Your task to perform on an android device: Open the calendar app, open the side menu, and click the "Day" option Image 0: 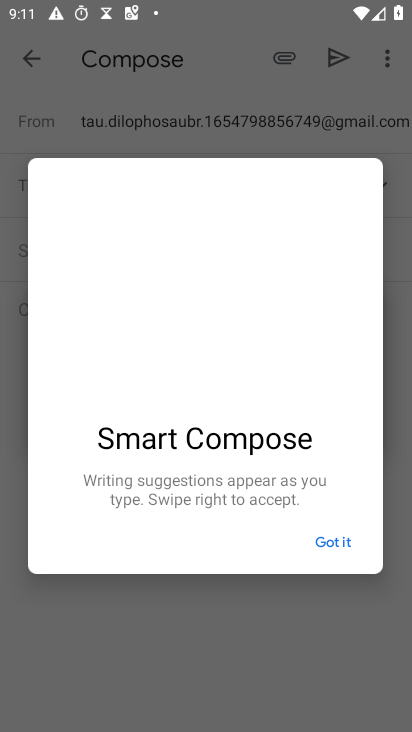
Step 0: press home button
Your task to perform on an android device: Open the calendar app, open the side menu, and click the "Day" option Image 1: 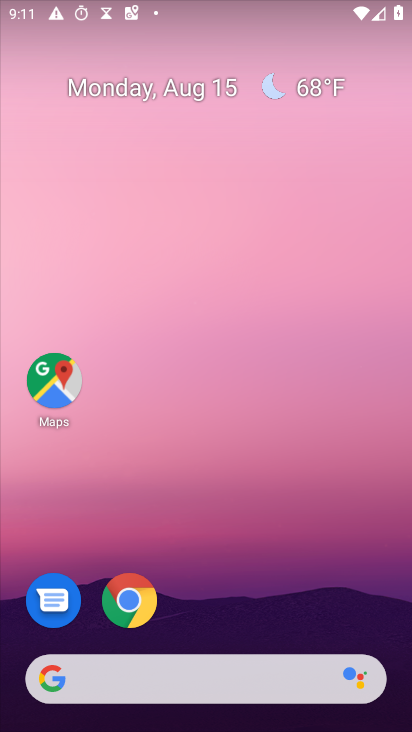
Step 1: drag from (229, 638) to (212, 140)
Your task to perform on an android device: Open the calendar app, open the side menu, and click the "Day" option Image 2: 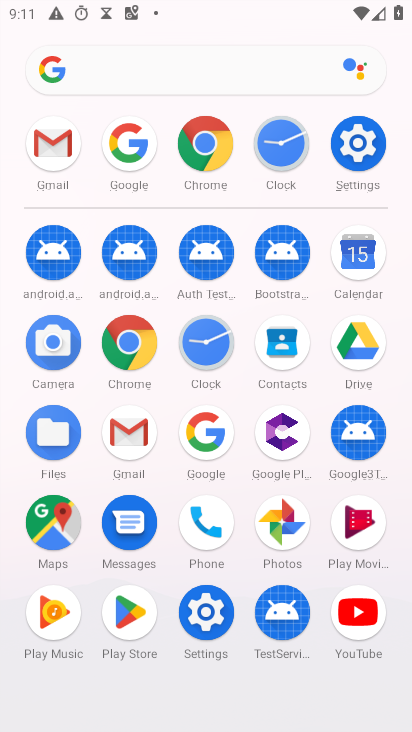
Step 2: click (358, 256)
Your task to perform on an android device: Open the calendar app, open the side menu, and click the "Day" option Image 3: 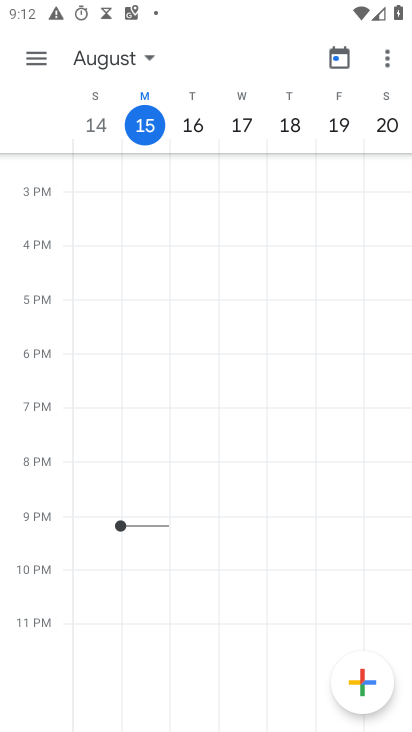
Step 3: click (32, 58)
Your task to perform on an android device: Open the calendar app, open the side menu, and click the "Day" option Image 4: 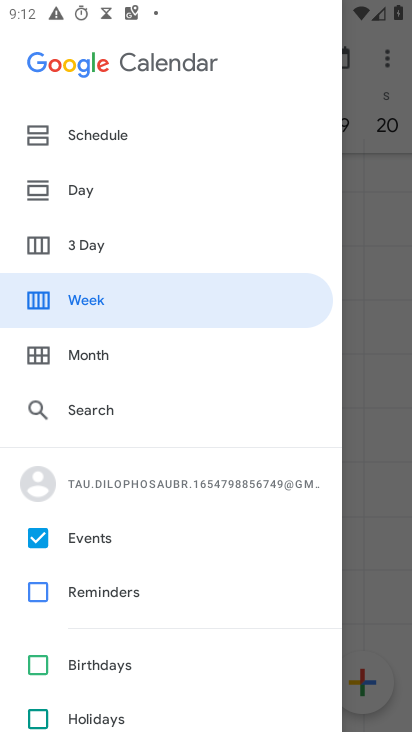
Step 4: click (77, 190)
Your task to perform on an android device: Open the calendar app, open the side menu, and click the "Day" option Image 5: 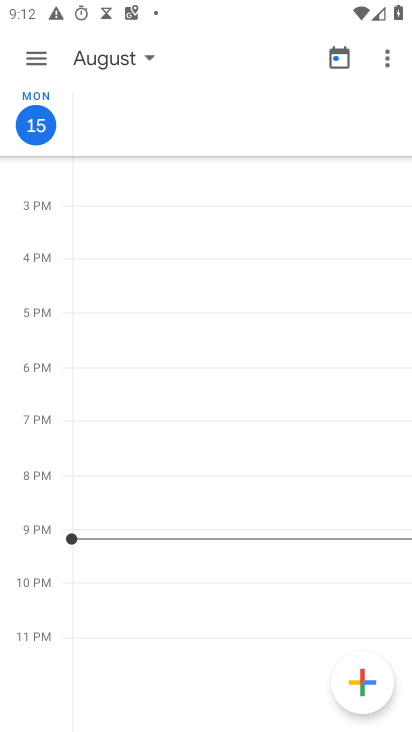
Step 5: task complete